Your task to perform on an android device: Add sony triple a to the cart on newegg, then select checkout. Image 0: 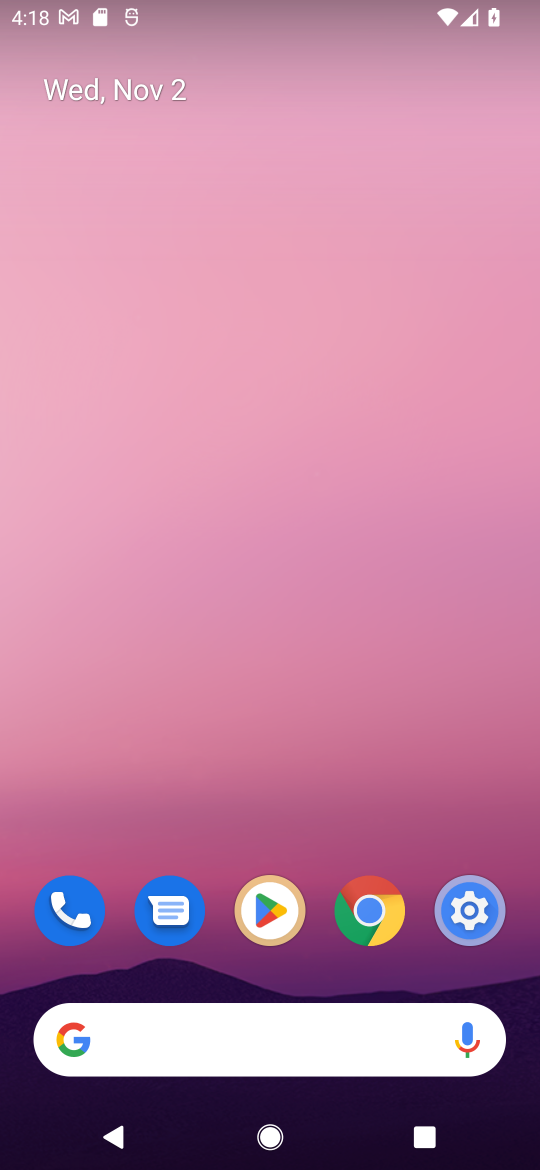
Step 0: click (198, 1053)
Your task to perform on an android device: Add sony triple a to the cart on newegg, then select checkout. Image 1: 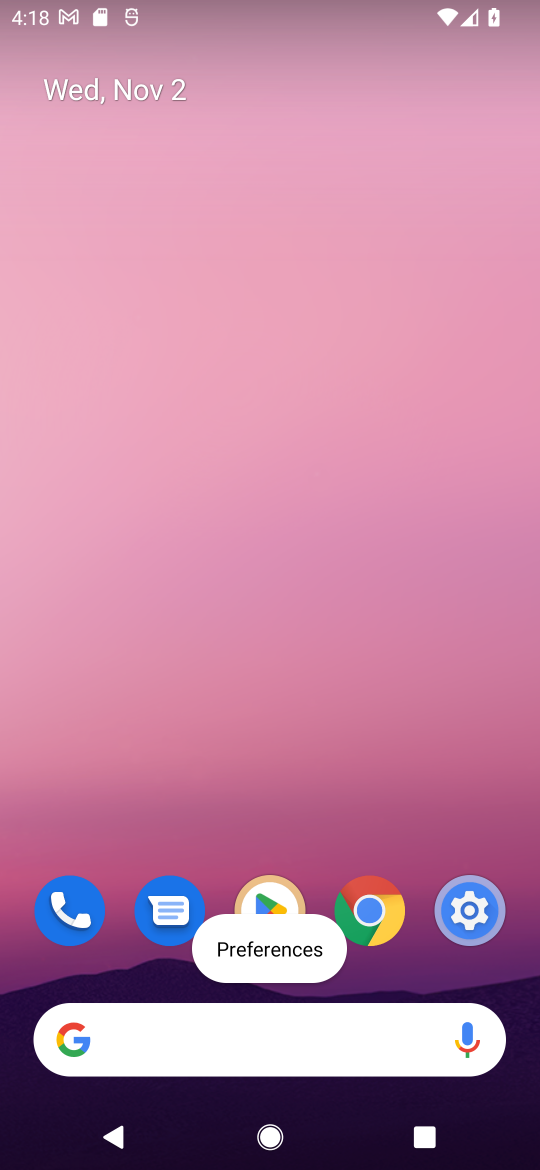
Step 1: click (305, 1036)
Your task to perform on an android device: Add sony triple a to the cart on newegg, then select checkout. Image 2: 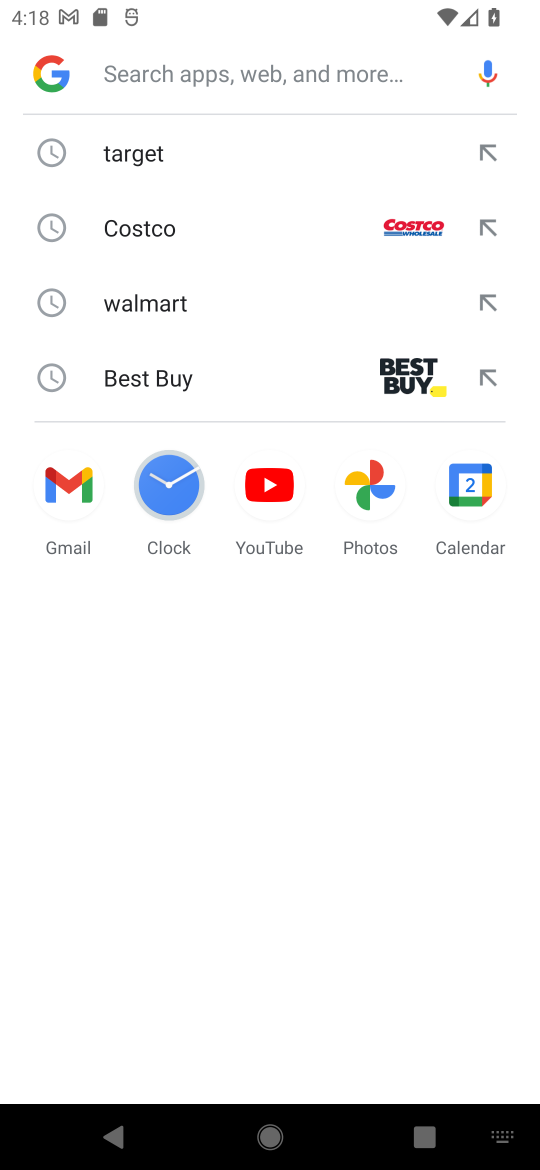
Step 2: type "newegg"
Your task to perform on an android device: Add sony triple a to the cart on newegg, then select checkout. Image 3: 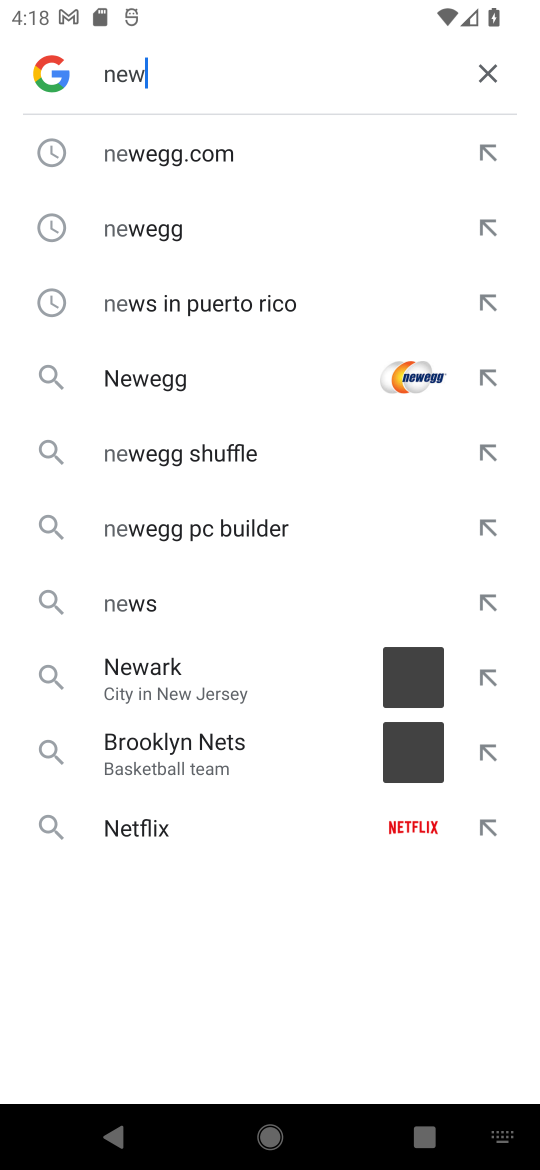
Step 3: type ""
Your task to perform on an android device: Add sony triple a to the cart on newegg, then select checkout. Image 4: 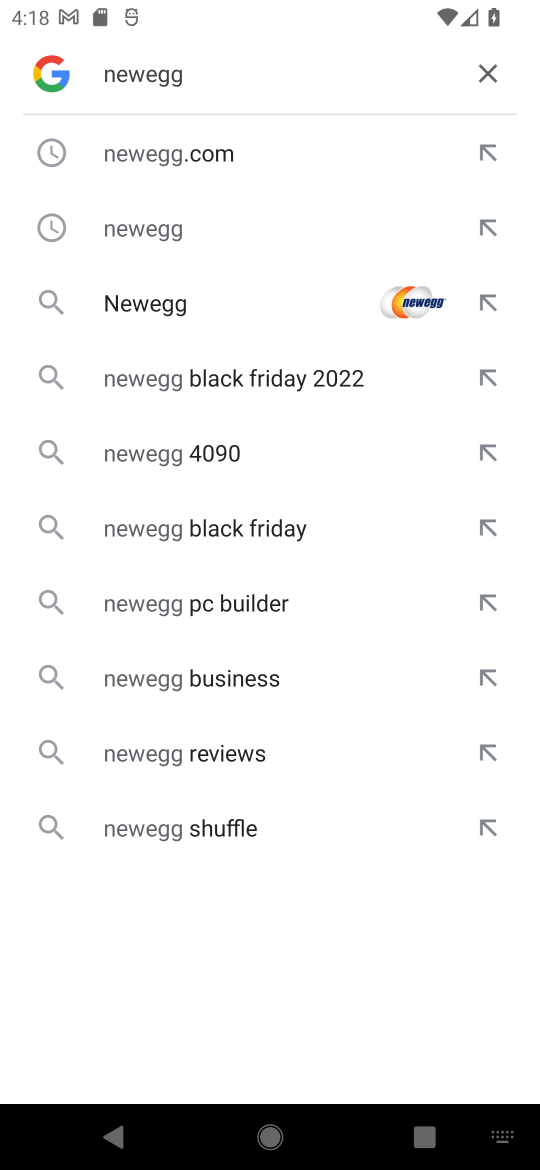
Step 4: click (174, 166)
Your task to perform on an android device: Add sony triple a to the cart on newegg, then select checkout. Image 5: 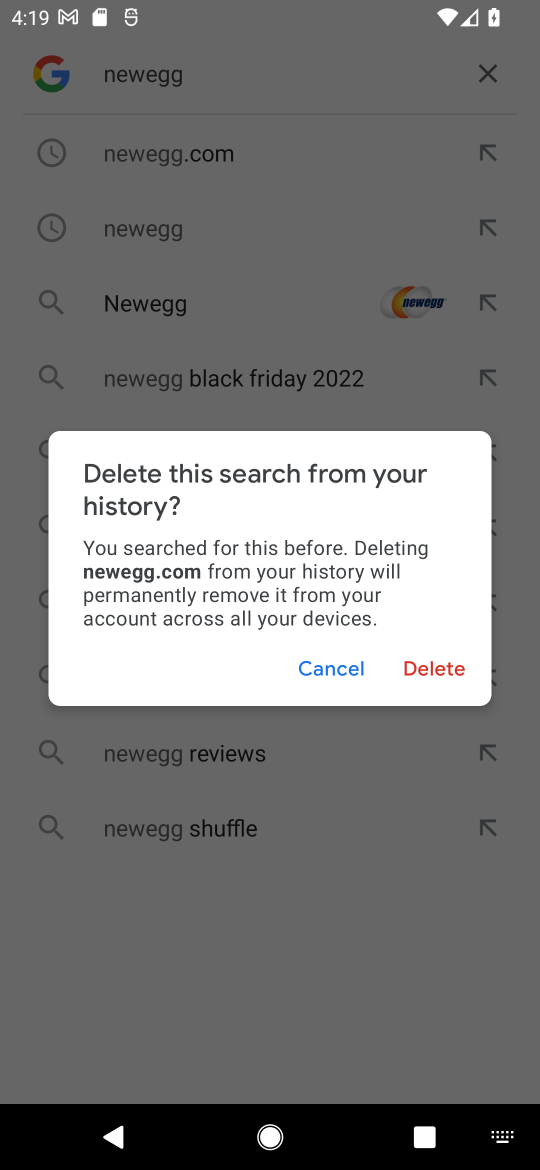
Step 5: click (323, 670)
Your task to perform on an android device: Add sony triple a to the cart on newegg, then select checkout. Image 6: 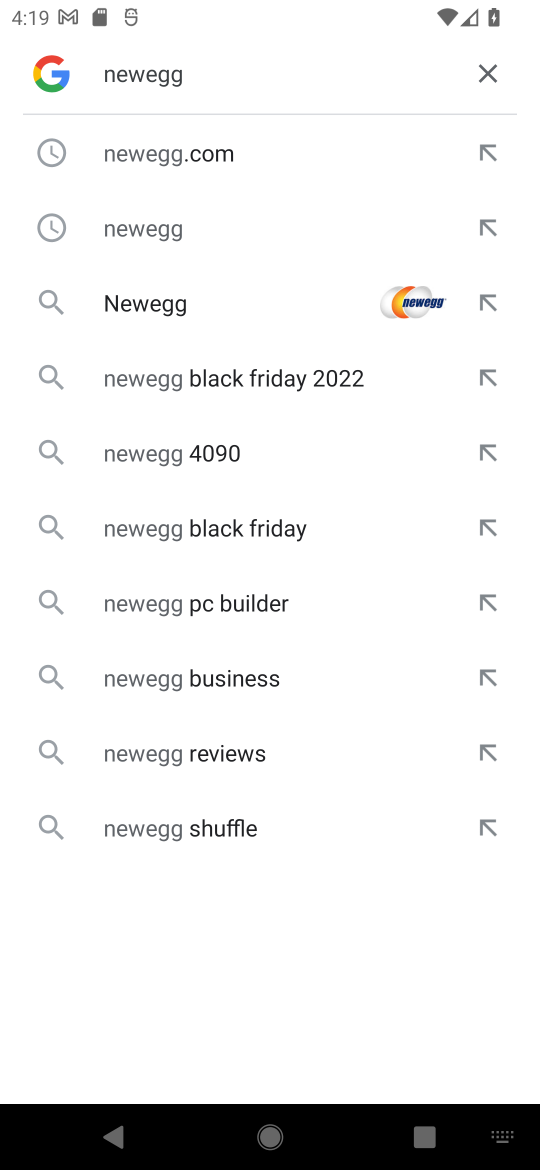
Step 6: press enter
Your task to perform on an android device: Add sony triple a to the cart on newegg, then select checkout. Image 7: 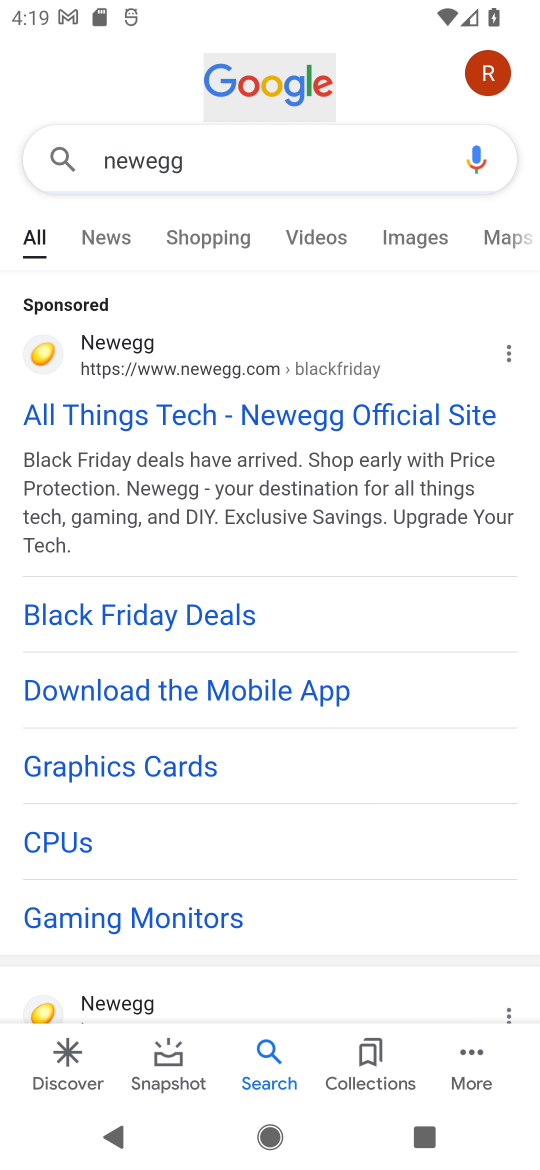
Step 7: click (178, 347)
Your task to perform on an android device: Add sony triple a to the cart on newegg, then select checkout. Image 8: 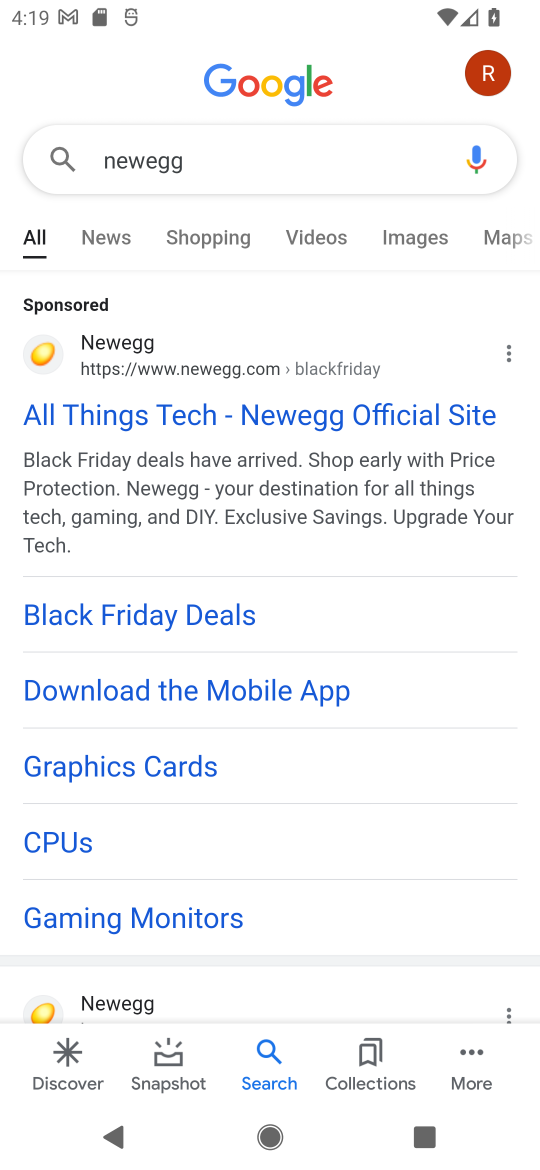
Step 8: click (176, 349)
Your task to perform on an android device: Add sony triple a to the cart on newegg, then select checkout. Image 9: 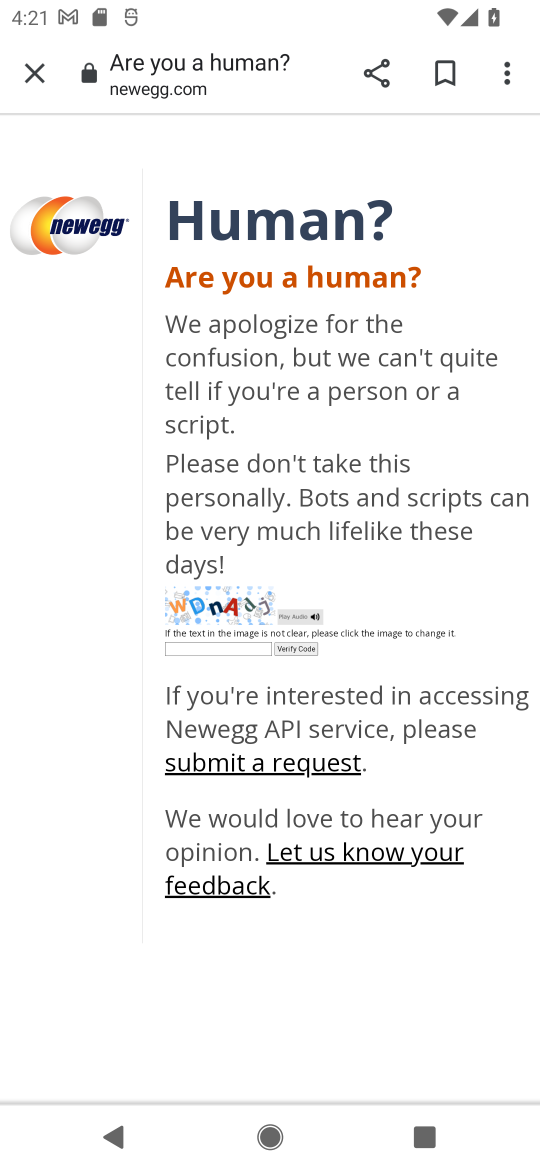
Step 9: task complete